Your task to perform on an android device: turn on improve location accuracy Image 0: 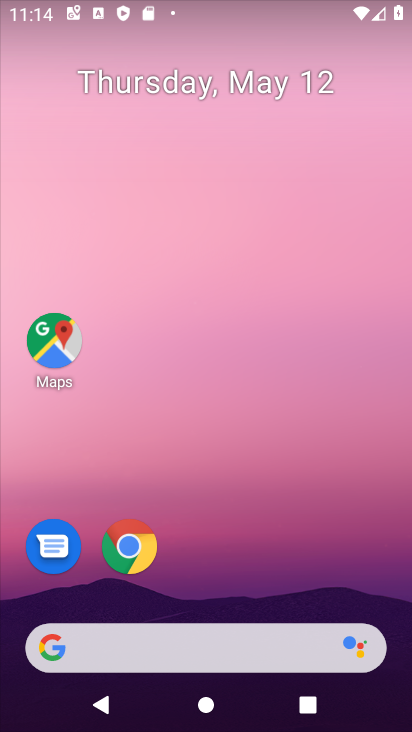
Step 0: drag from (237, 685) to (267, 245)
Your task to perform on an android device: turn on improve location accuracy Image 1: 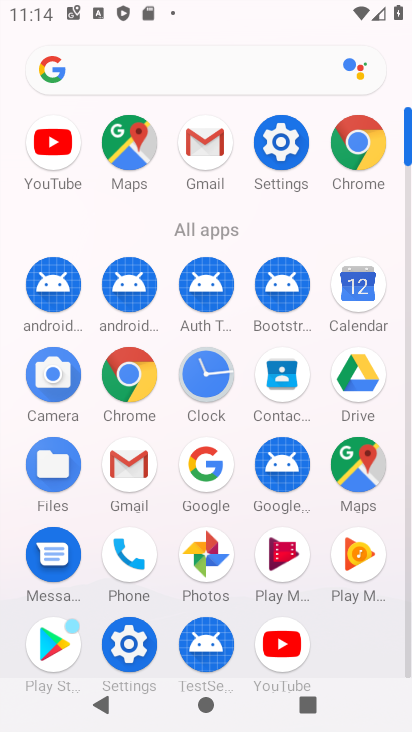
Step 1: click (283, 160)
Your task to perform on an android device: turn on improve location accuracy Image 2: 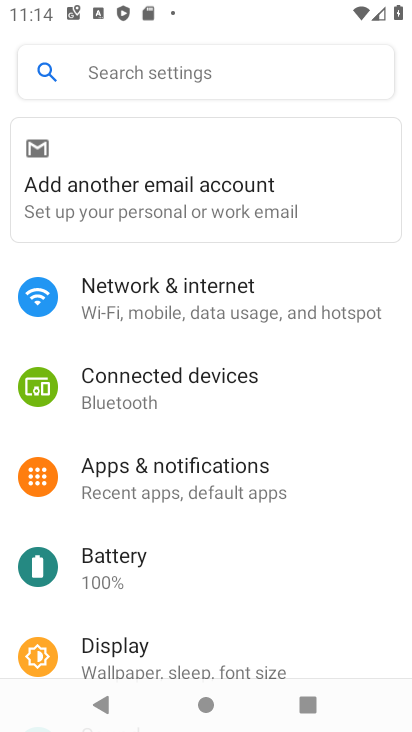
Step 2: drag from (129, 653) to (168, 657)
Your task to perform on an android device: turn on improve location accuracy Image 3: 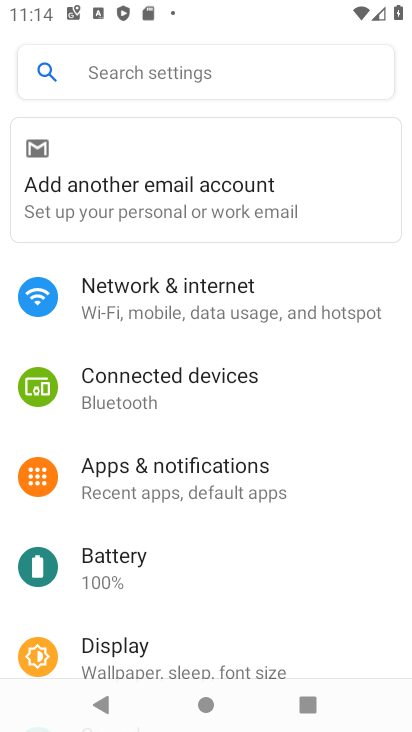
Step 3: drag from (187, 596) to (261, 326)
Your task to perform on an android device: turn on improve location accuracy Image 4: 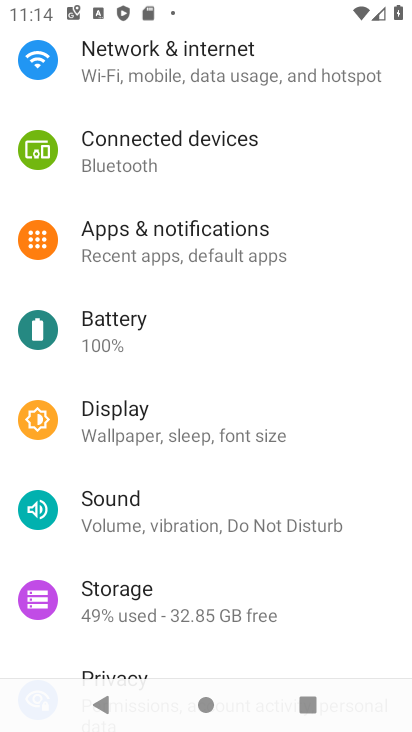
Step 4: drag from (116, 644) to (219, 450)
Your task to perform on an android device: turn on improve location accuracy Image 5: 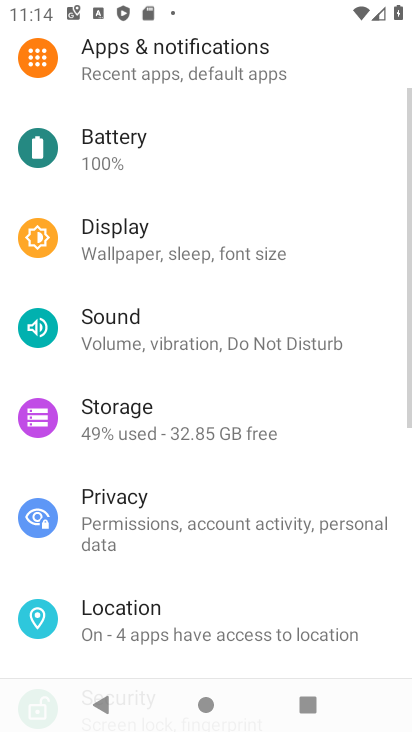
Step 5: click (146, 615)
Your task to perform on an android device: turn on improve location accuracy Image 6: 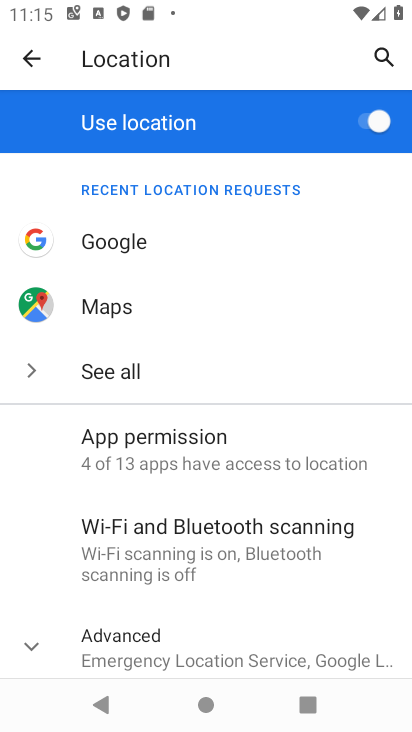
Step 6: click (48, 665)
Your task to perform on an android device: turn on improve location accuracy Image 7: 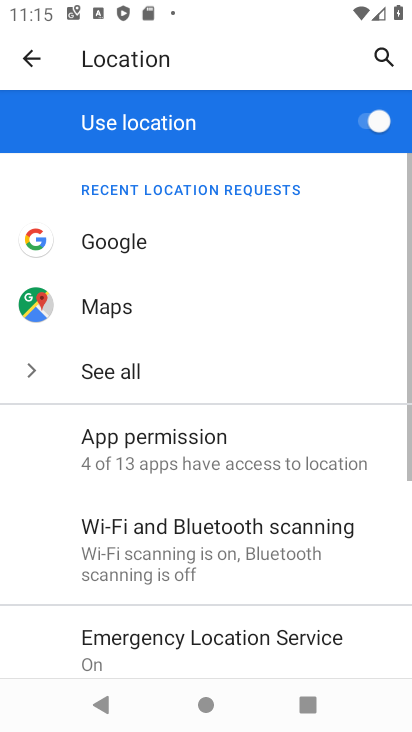
Step 7: drag from (111, 612) to (175, 363)
Your task to perform on an android device: turn on improve location accuracy Image 8: 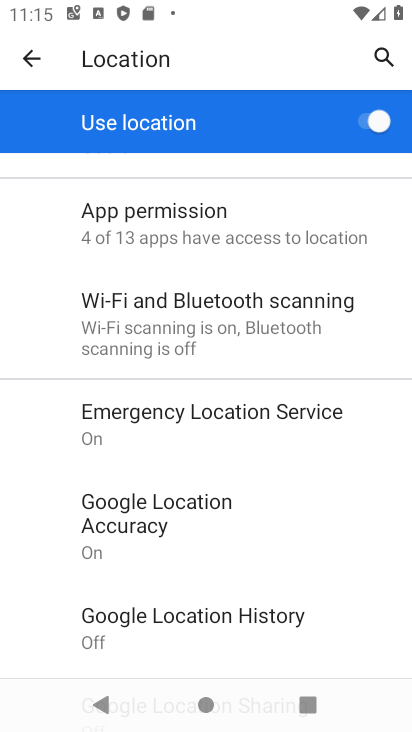
Step 8: click (178, 511)
Your task to perform on an android device: turn on improve location accuracy Image 9: 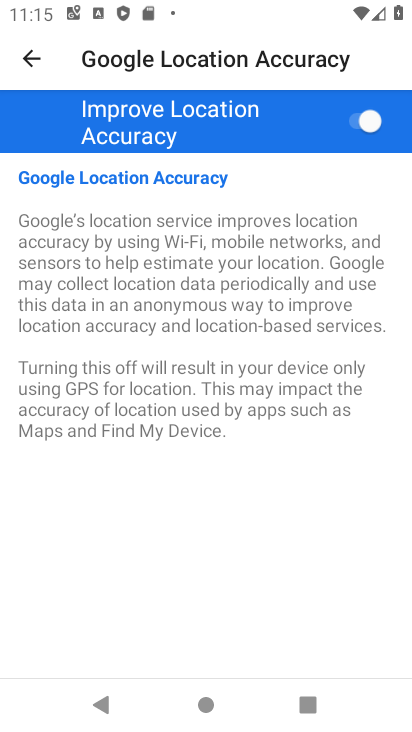
Step 9: task complete